Your task to perform on an android device: check data usage Image 0: 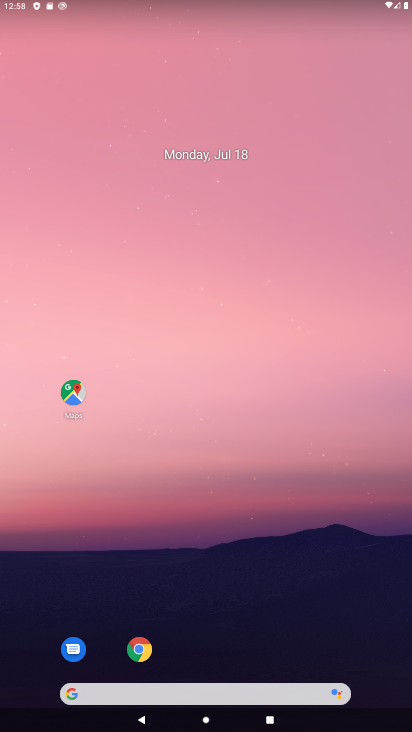
Step 0: drag from (215, 666) to (174, 98)
Your task to perform on an android device: check data usage Image 1: 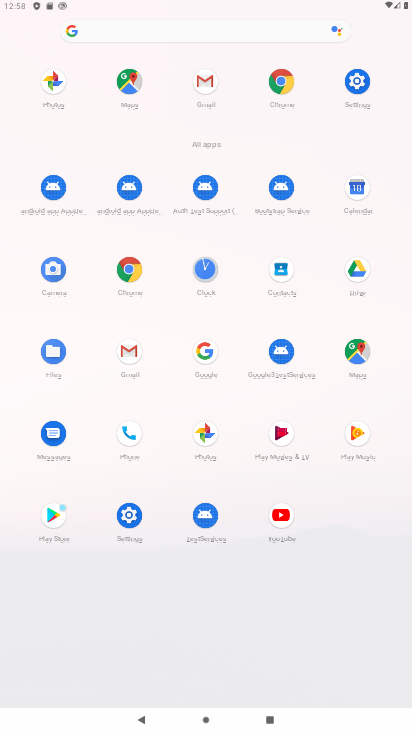
Step 1: click (134, 513)
Your task to perform on an android device: check data usage Image 2: 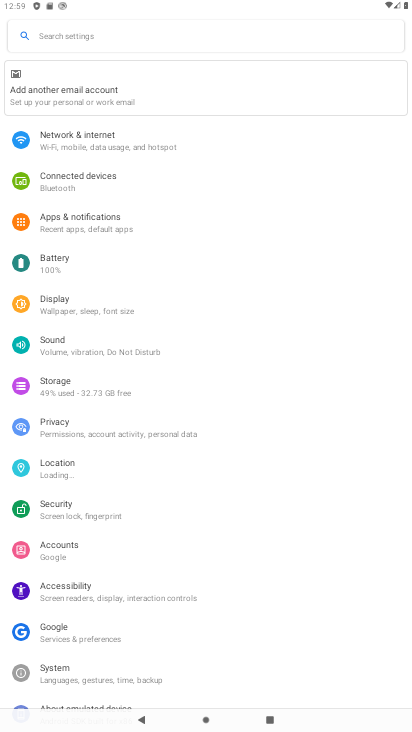
Step 2: click (76, 140)
Your task to perform on an android device: check data usage Image 3: 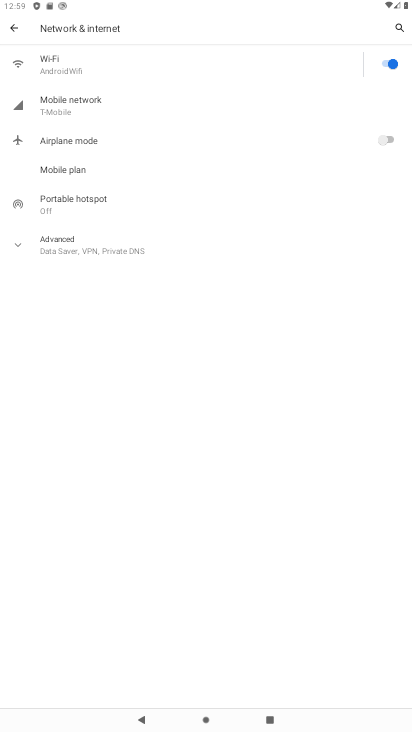
Step 3: click (74, 107)
Your task to perform on an android device: check data usage Image 4: 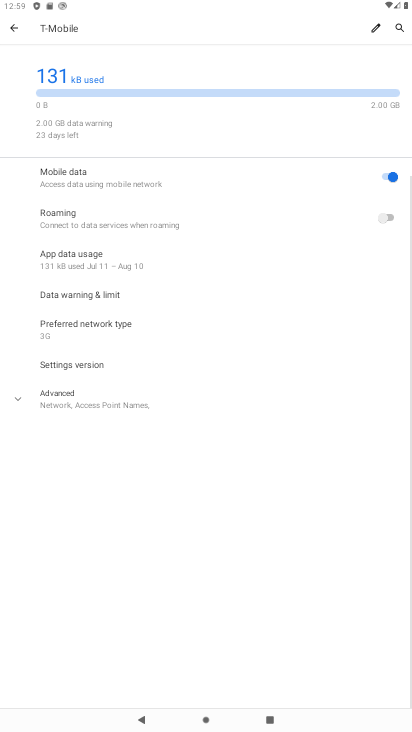
Step 4: task complete